Your task to perform on an android device: check battery use Image 0: 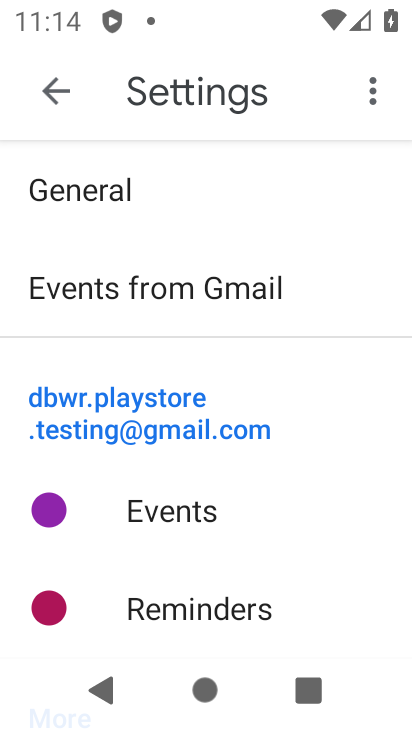
Step 0: press home button
Your task to perform on an android device: check battery use Image 1: 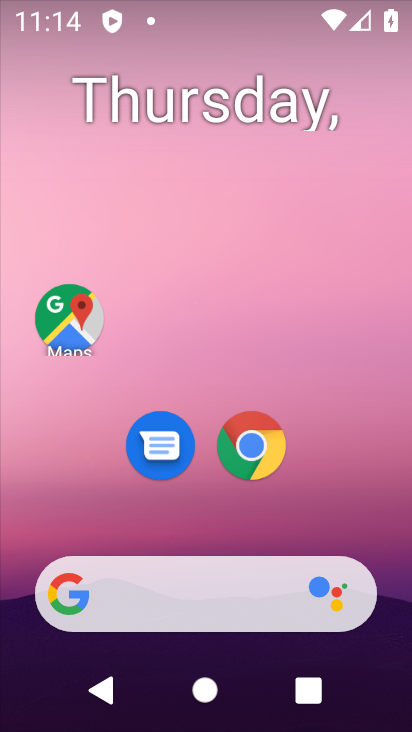
Step 1: drag from (335, 437) to (353, 71)
Your task to perform on an android device: check battery use Image 2: 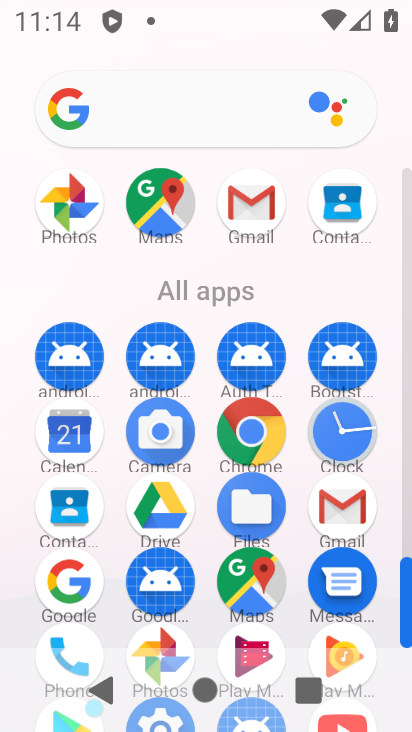
Step 2: drag from (411, 362) to (402, 165)
Your task to perform on an android device: check battery use Image 3: 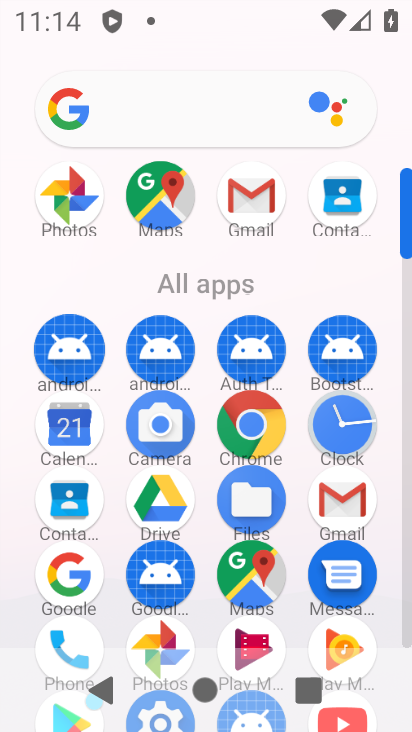
Step 3: click (181, 606)
Your task to perform on an android device: check battery use Image 4: 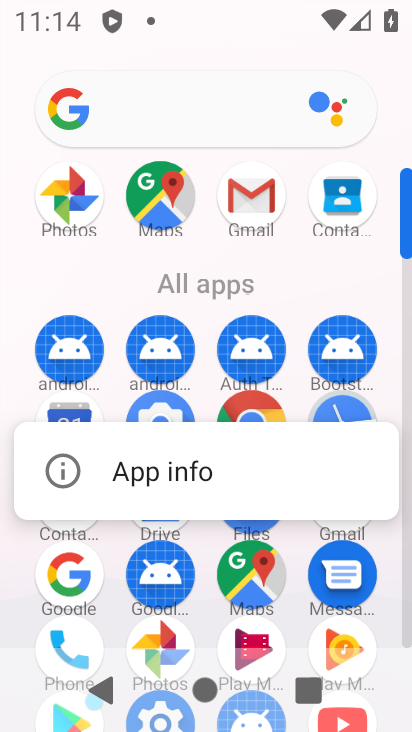
Step 4: drag from (402, 519) to (409, 245)
Your task to perform on an android device: check battery use Image 5: 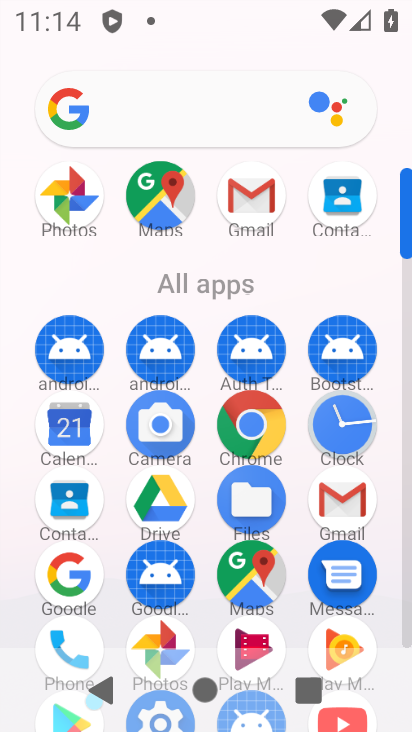
Step 5: drag from (388, 527) to (385, 168)
Your task to perform on an android device: check battery use Image 6: 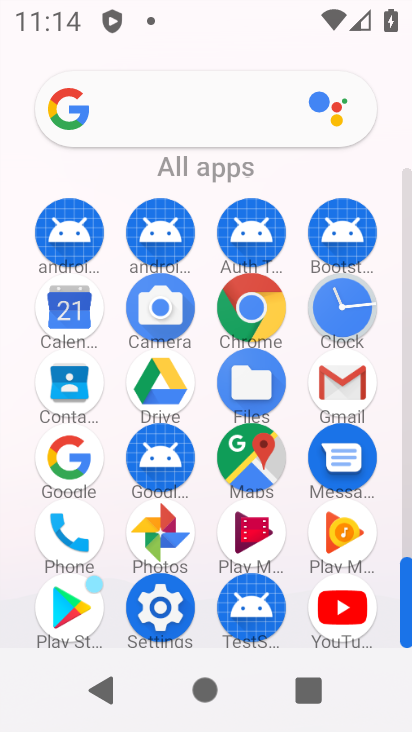
Step 6: click (175, 599)
Your task to perform on an android device: check battery use Image 7: 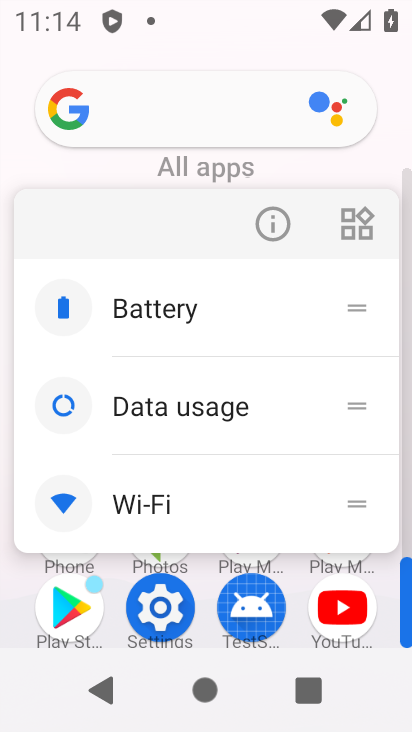
Step 7: click (175, 597)
Your task to perform on an android device: check battery use Image 8: 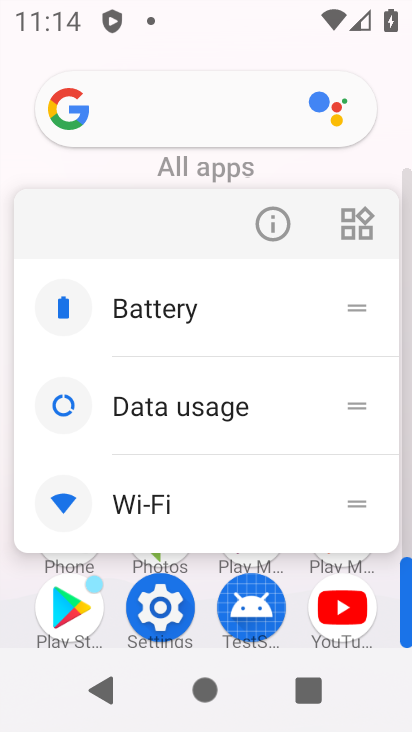
Step 8: click (175, 596)
Your task to perform on an android device: check battery use Image 9: 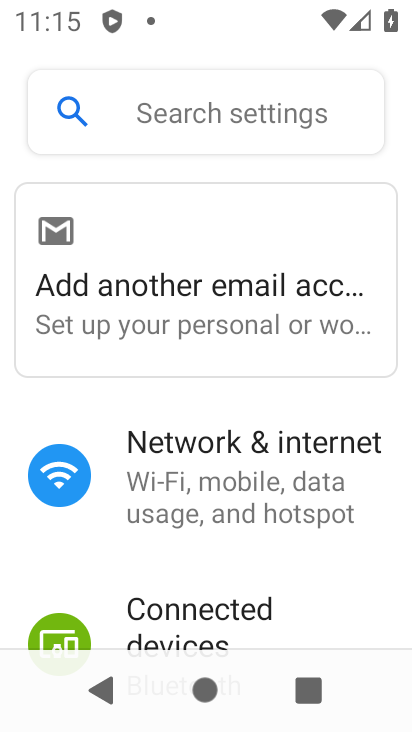
Step 9: drag from (251, 588) to (349, 161)
Your task to perform on an android device: check battery use Image 10: 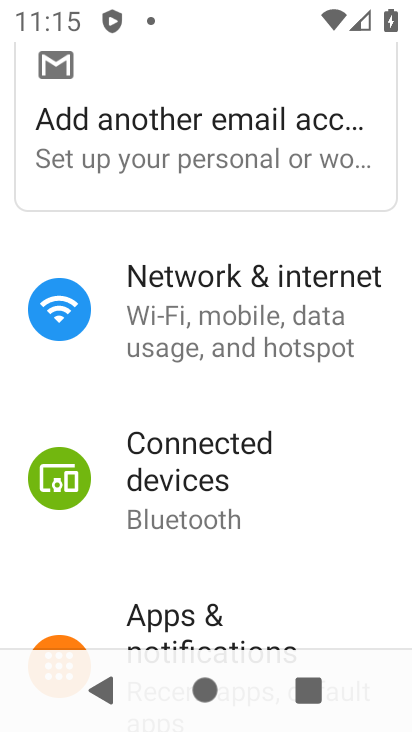
Step 10: drag from (306, 523) to (336, 164)
Your task to perform on an android device: check battery use Image 11: 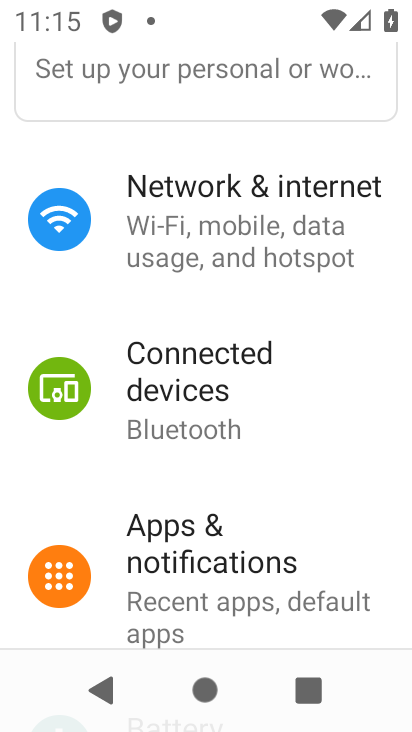
Step 11: drag from (278, 527) to (352, 112)
Your task to perform on an android device: check battery use Image 12: 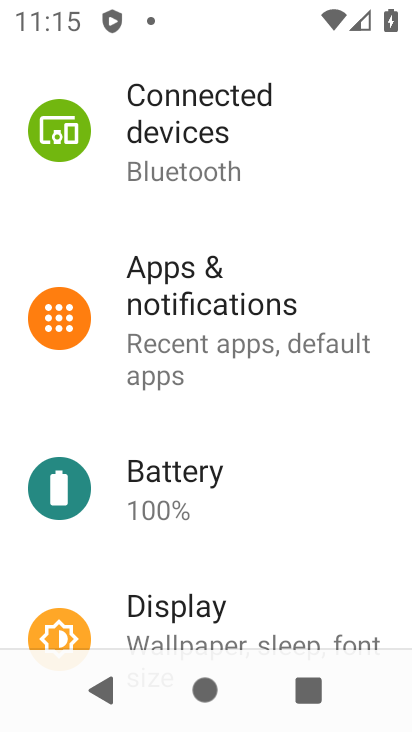
Step 12: click (189, 482)
Your task to perform on an android device: check battery use Image 13: 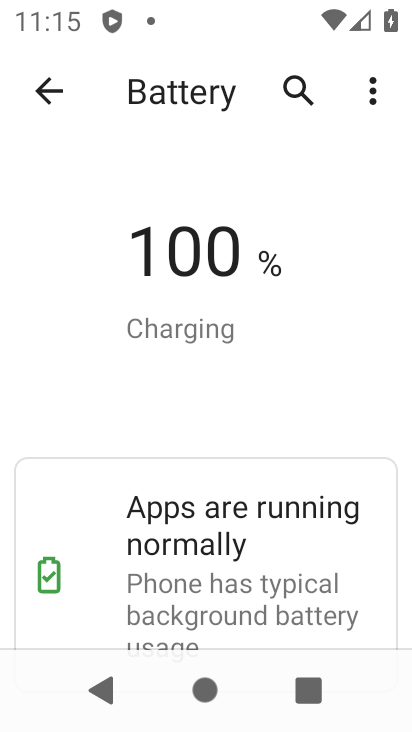
Step 13: task complete